Your task to perform on an android device: Open maps Image 0: 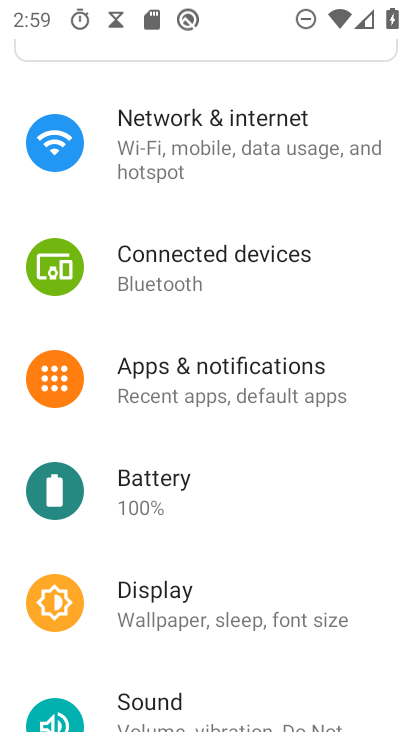
Step 0: press home button
Your task to perform on an android device: Open maps Image 1: 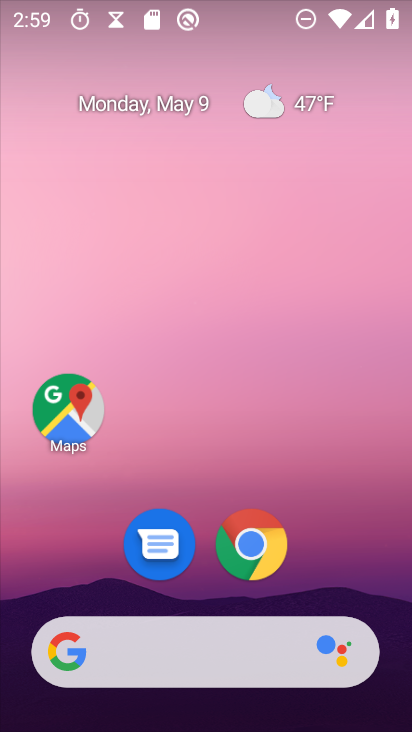
Step 1: click (98, 428)
Your task to perform on an android device: Open maps Image 2: 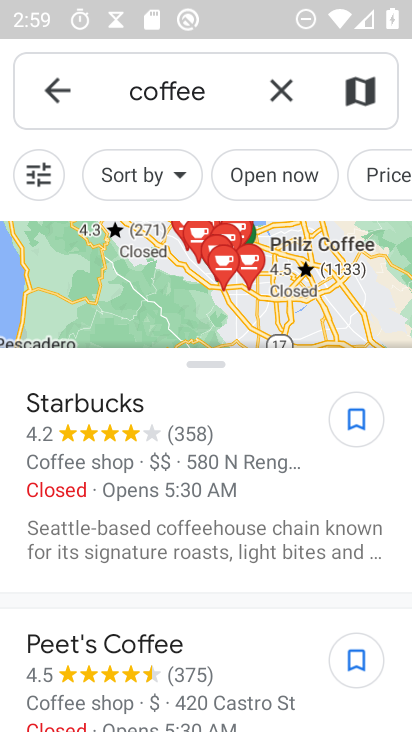
Step 2: click (271, 95)
Your task to perform on an android device: Open maps Image 3: 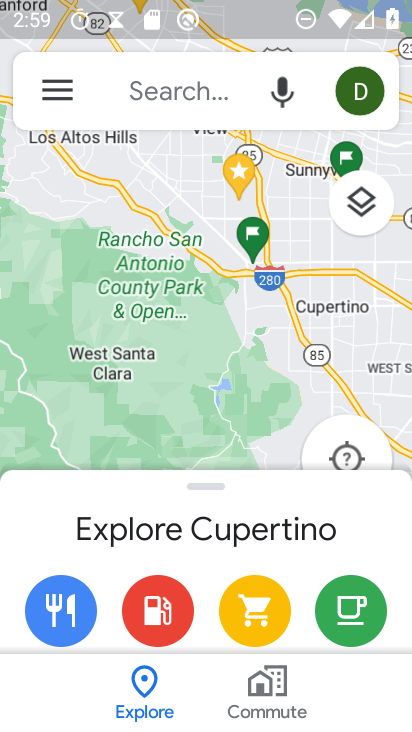
Step 3: task complete